Your task to perform on an android device: Go to network settings Image 0: 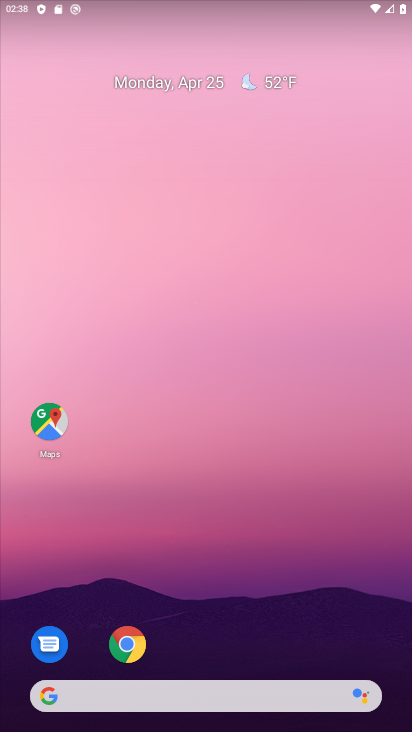
Step 0: drag from (250, 644) to (201, 218)
Your task to perform on an android device: Go to network settings Image 1: 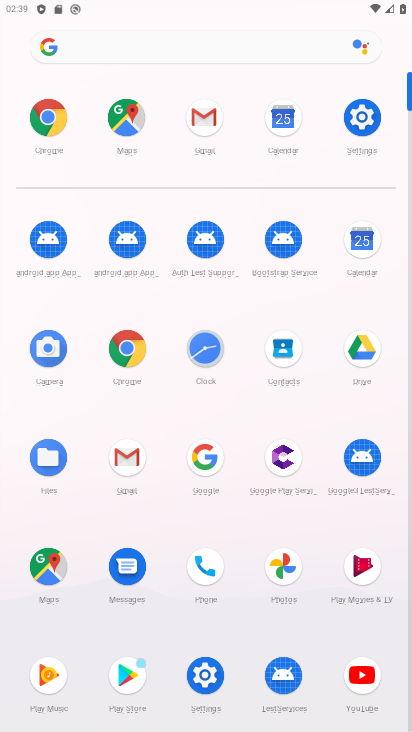
Step 1: click (371, 146)
Your task to perform on an android device: Go to network settings Image 2: 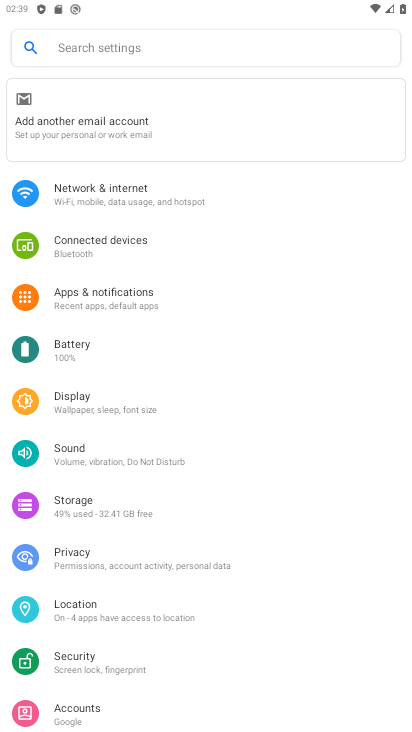
Step 2: click (141, 194)
Your task to perform on an android device: Go to network settings Image 3: 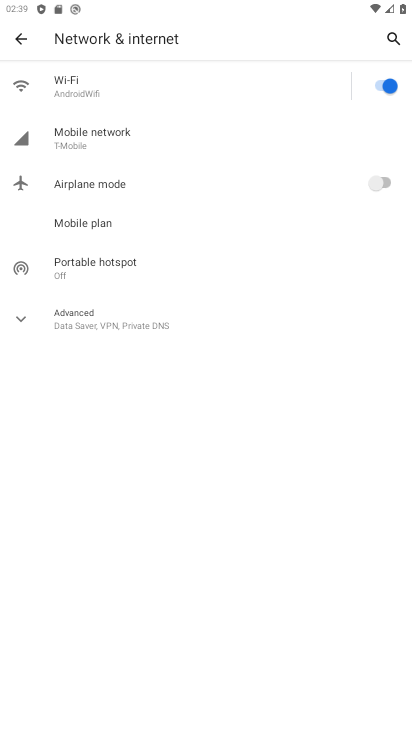
Step 3: task complete